Your task to perform on an android device: open sync settings in chrome Image 0: 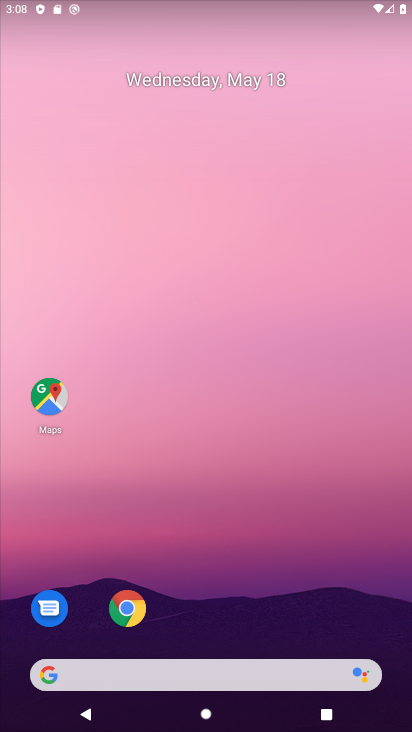
Step 0: press back button
Your task to perform on an android device: open sync settings in chrome Image 1: 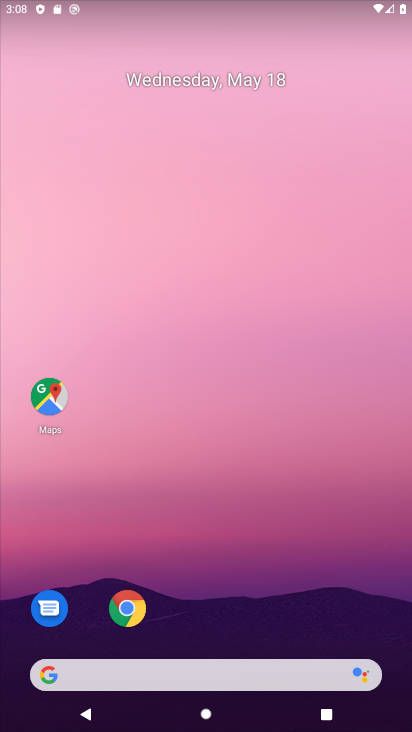
Step 1: click (126, 611)
Your task to perform on an android device: open sync settings in chrome Image 2: 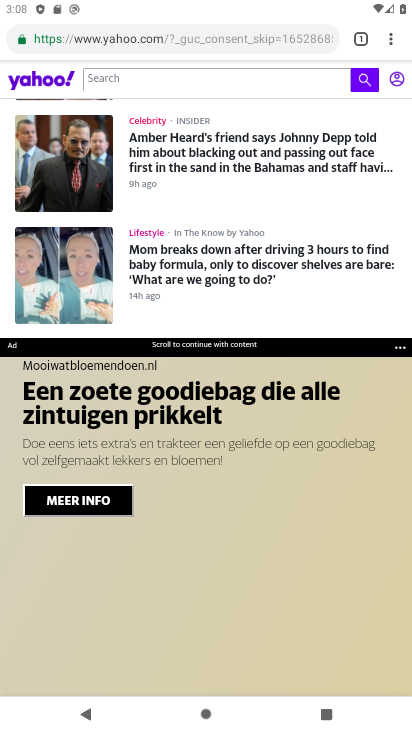
Step 2: click (389, 35)
Your task to perform on an android device: open sync settings in chrome Image 3: 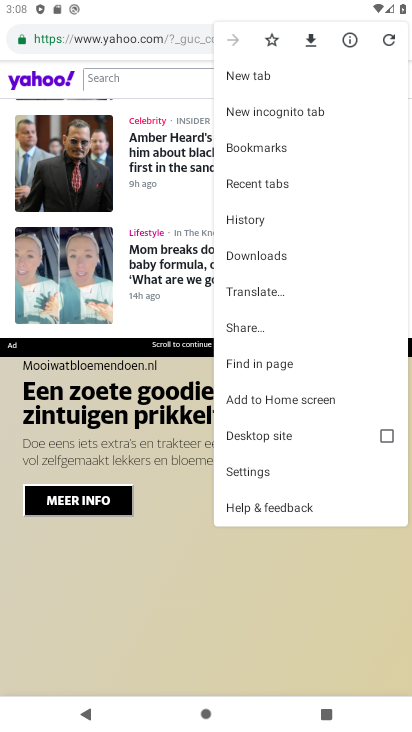
Step 3: click (241, 468)
Your task to perform on an android device: open sync settings in chrome Image 4: 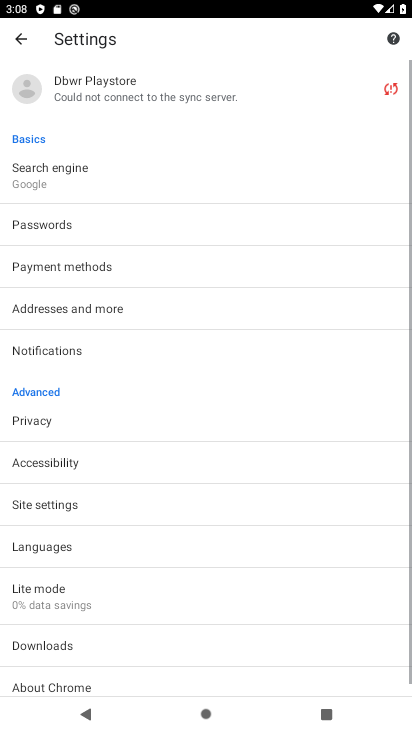
Step 4: click (131, 96)
Your task to perform on an android device: open sync settings in chrome Image 5: 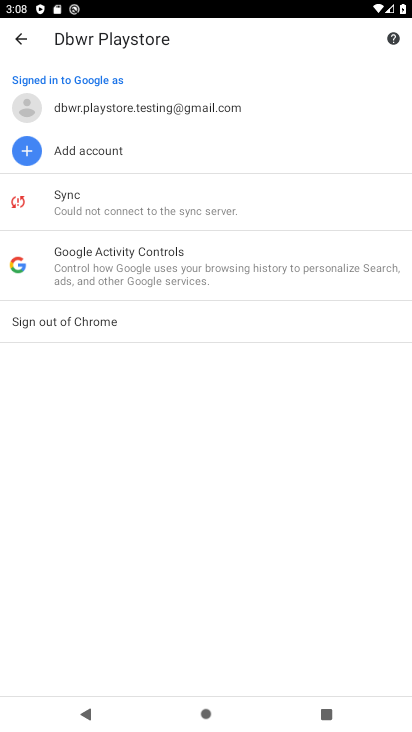
Step 5: click (57, 211)
Your task to perform on an android device: open sync settings in chrome Image 6: 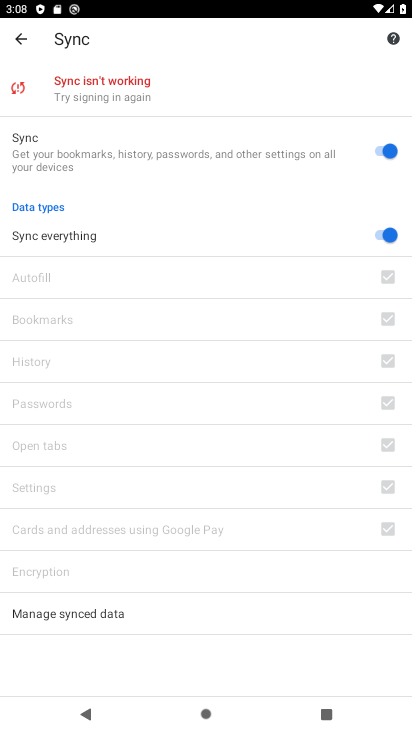
Step 6: task complete